Your task to perform on an android device: open app "AliExpress" (install if not already installed), go to login, and select forgot password Image 0: 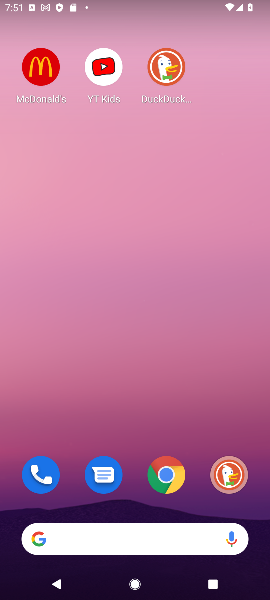
Step 0: drag from (118, 501) to (162, 10)
Your task to perform on an android device: open app "AliExpress" (install if not already installed), go to login, and select forgot password Image 1: 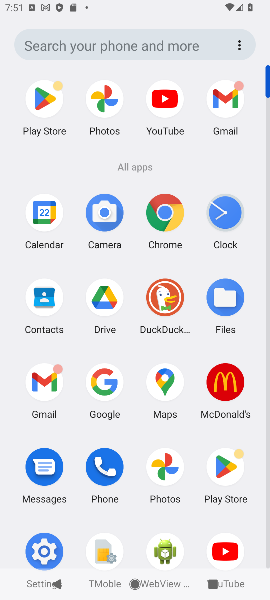
Step 1: click (44, 103)
Your task to perform on an android device: open app "AliExpress" (install if not already installed), go to login, and select forgot password Image 2: 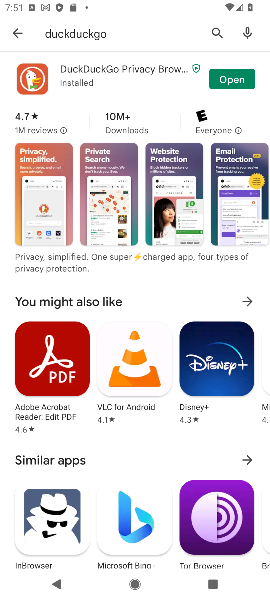
Step 2: click (90, 36)
Your task to perform on an android device: open app "AliExpress" (install if not already installed), go to login, and select forgot password Image 3: 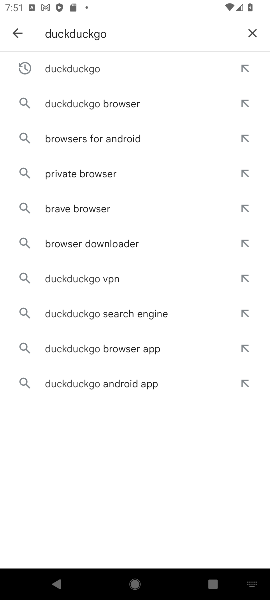
Step 3: click (251, 34)
Your task to perform on an android device: open app "AliExpress" (install if not already installed), go to login, and select forgot password Image 4: 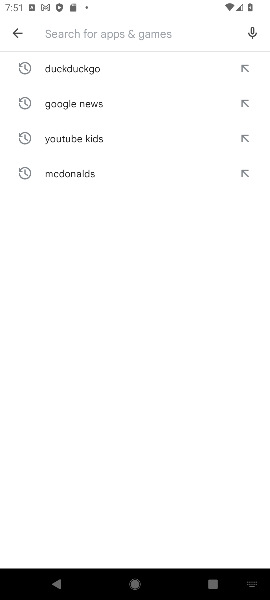
Step 4: type "AliExpress"
Your task to perform on an android device: open app "AliExpress" (install if not already installed), go to login, and select forgot password Image 5: 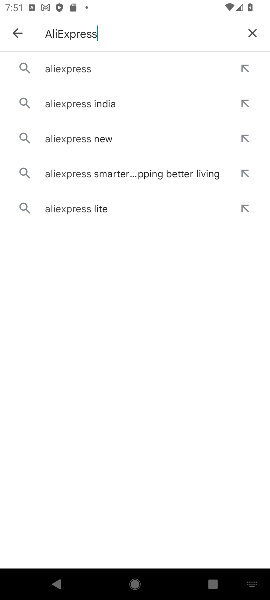
Step 5: click (94, 76)
Your task to perform on an android device: open app "AliExpress" (install if not already installed), go to login, and select forgot password Image 6: 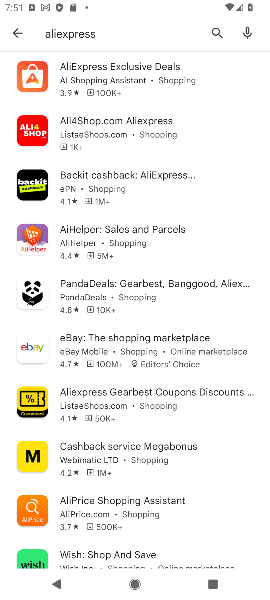
Step 6: click (119, 79)
Your task to perform on an android device: open app "AliExpress" (install if not already installed), go to login, and select forgot password Image 7: 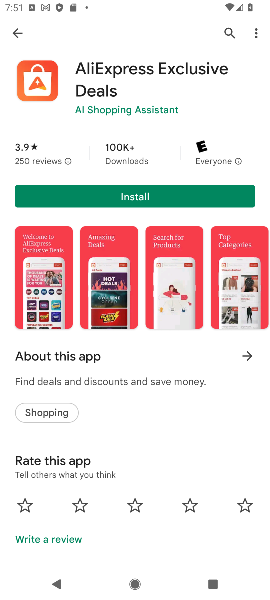
Step 7: click (173, 202)
Your task to perform on an android device: open app "AliExpress" (install if not already installed), go to login, and select forgot password Image 8: 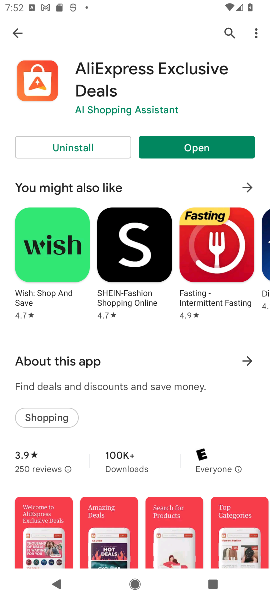
Step 8: click (218, 149)
Your task to perform on an android device: open app "AliExpress" (install if not already installed), go to login, and select forgot password Image 9: 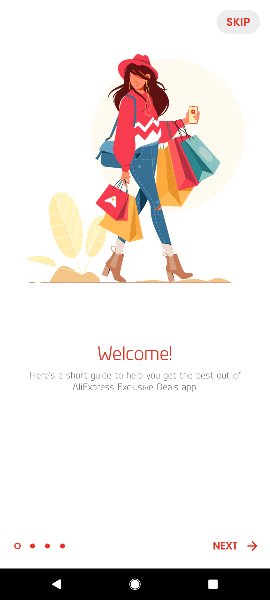
Step 9: click (246, 550)
Your task to perform on an android device: open app "AliExpress" (install if not already installed), go to login, and select forgot password Image 10: 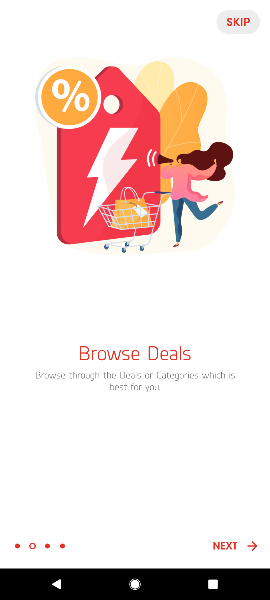
Step 10: click (238, 543)
Your task to perform on an android device: open app "AliExpress" (install if not already installed), go to login, and select forgot password Image 11: 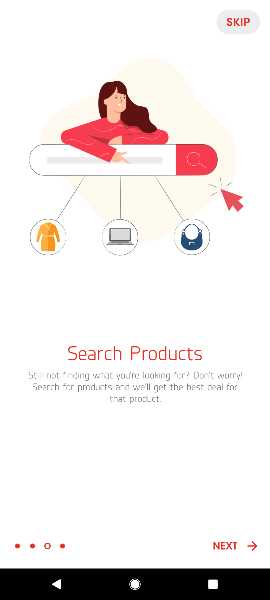
Step 11: click (241, 545)
Your task to perform on an android device: open app "AliExpress" (install if not already installed), go to login, and select forgot password Image 12: 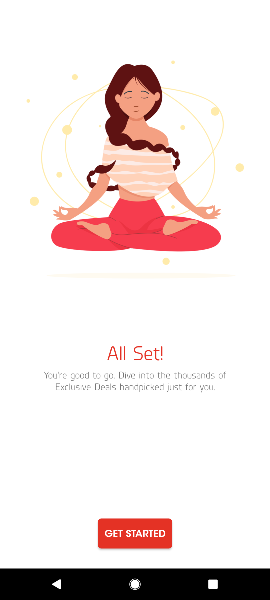
Step 12: click (141, 526)
Your task to perform on an android device: open app "AliExpress" (install if not already installed), go to login, and select forgot password Image 13: 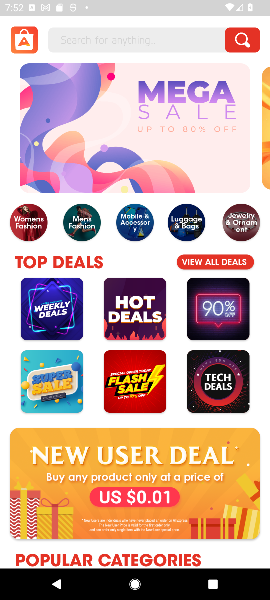
Step 13: click (21, 36)
Your task to perform on an android device: open app "AliExpress" (install if not already installed), go to login, and select forgot password Image 14: 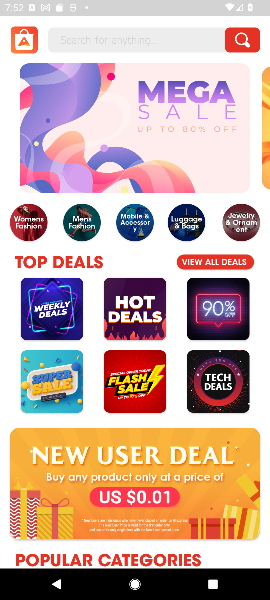
Step 14: click (30, 39)
Your task to perform on an android device: open app "AliExpress" (install if not already installed), go to login, and select forgot password Image 15: 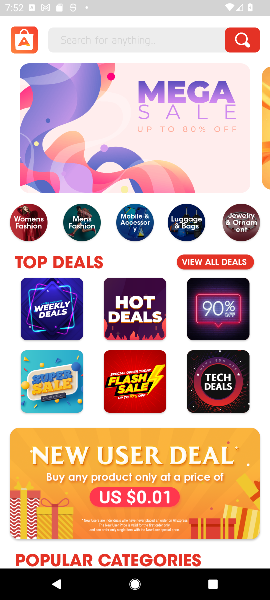
Step 15: click (30, 38)
Your task to perform on an android device: open app "AliExpress" (install if not already installed), go to login, and select forgot password Image 16: 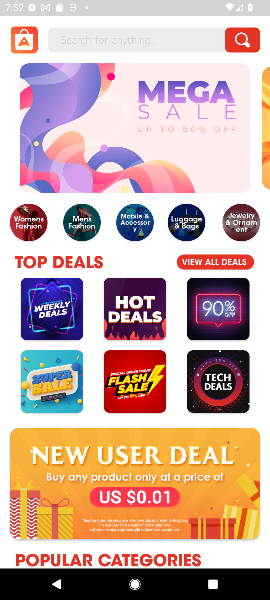
Step 16: click (30, 38)
Your task to perform on an android device: open app "AliExpress" (install if not already installed), go to login, and select forgot password Image 17: 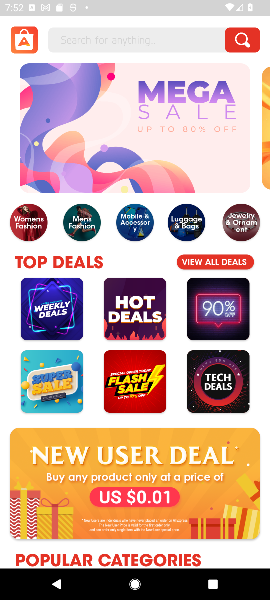
Step 17: click (30, 38)
Your task to perform on an android device: open app "AliExpress" (install if not already installed), go to login, and select forgot password Image 18: 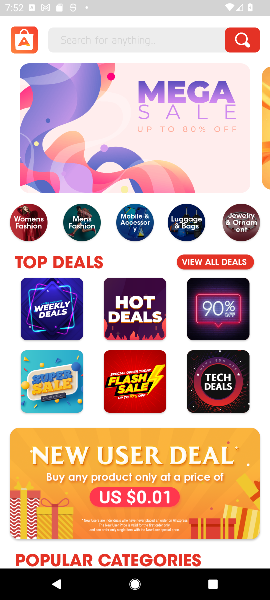
Step 18: click (29, 44)
Your task to perform on an android device: open app "AliExpress" (install if not already installed), go to login, and select forgot password Image 19: 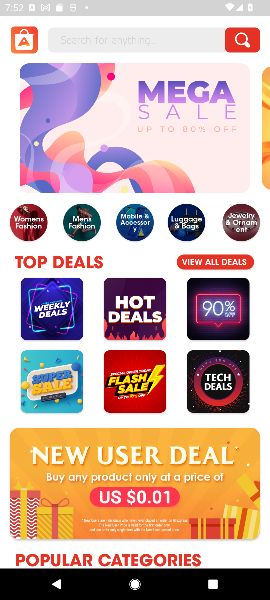
Step 19: click (38, 48)
Your task to perform on an android device: open app "AliExpress" (install if not already installed), go to login, and select forgot password Image 20: 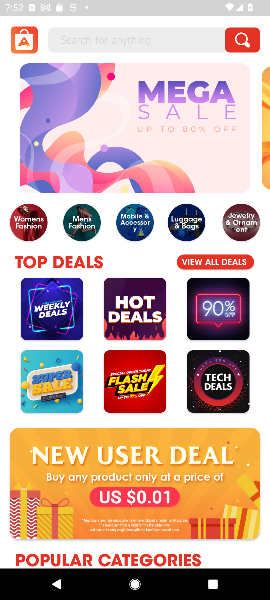
Step 20: click (19, 42)
Your task to perform on an android device: open app "AliExpress" (install if not already installed), go to login, and select forgot password Image 21: 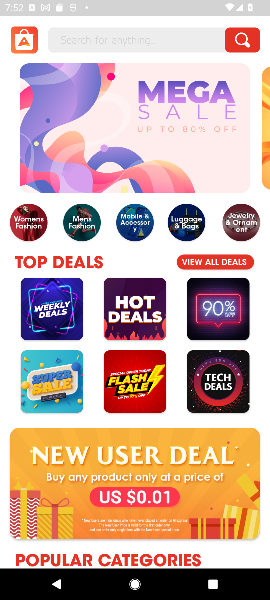
Step 21: click (24, 43)
Your task to perform on an android device: open app "AliExpress" (install if not already installed), go to login, and select forgot password Image 22: 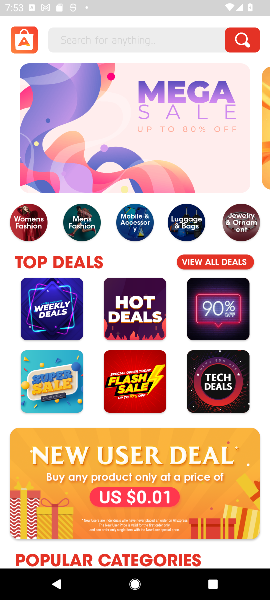
Step 22: click (26, 42)
Your task to perform on an android device: open app "AliExpress" (install if not already installed), go to login, and select forgot password Image 23: 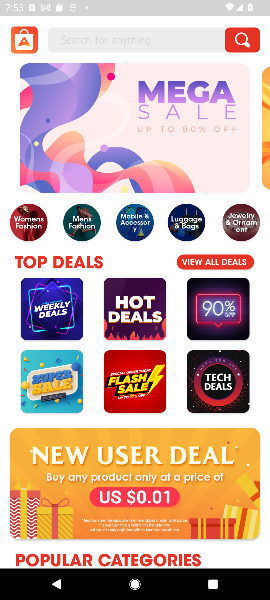
Step 23: task complete